Your task to perform on an android device: Open Google Image 0: 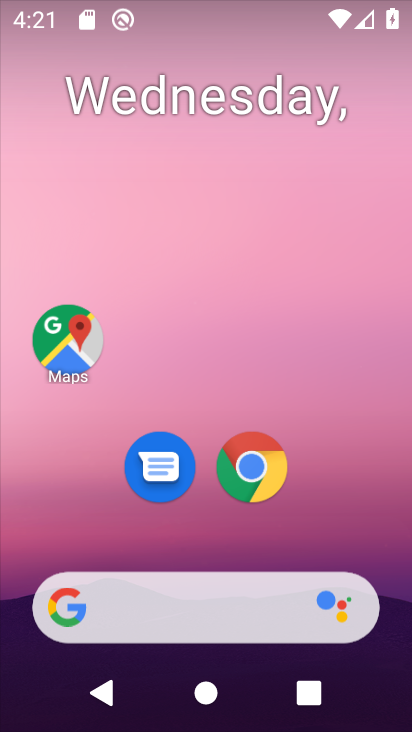
Step 0: drag from (194, 586) to (155, 87)
Your task to perform on an android device: Open Google Image 1: 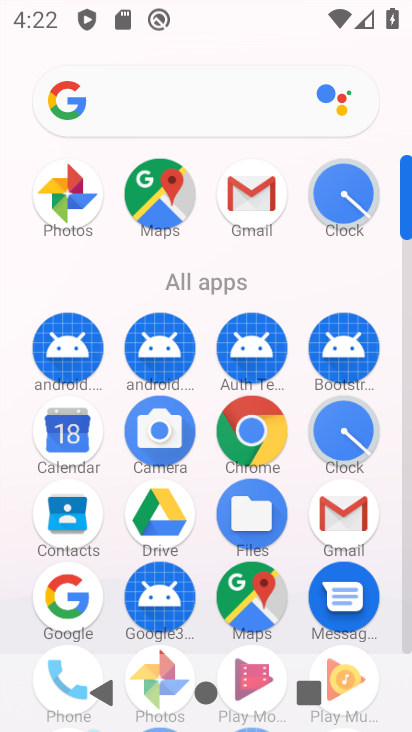
Step 1: click (58, 601)
Your task to perform on an android device: Open Google Image 2: 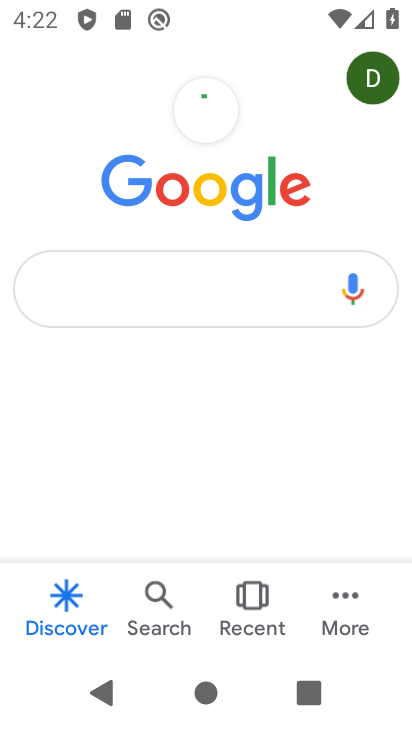
Step 2: task complete